Your task to perform on an android device: read, delete, or share a saved page in the chrome app Image 0: 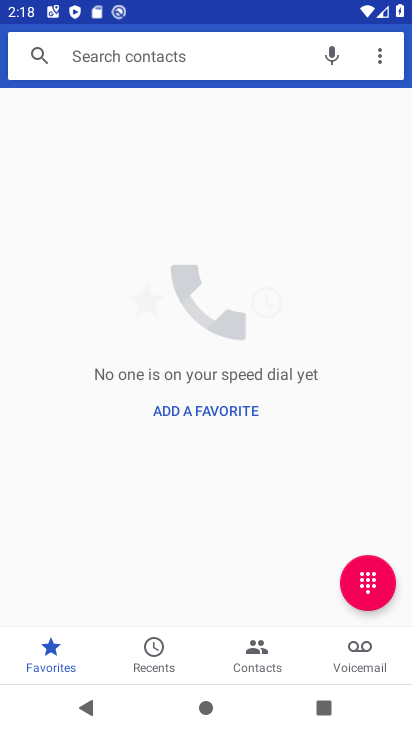
Step 0: press home button
Your task to perform on an android device: read, delete, or share a saved page in the chrome app Image 1: 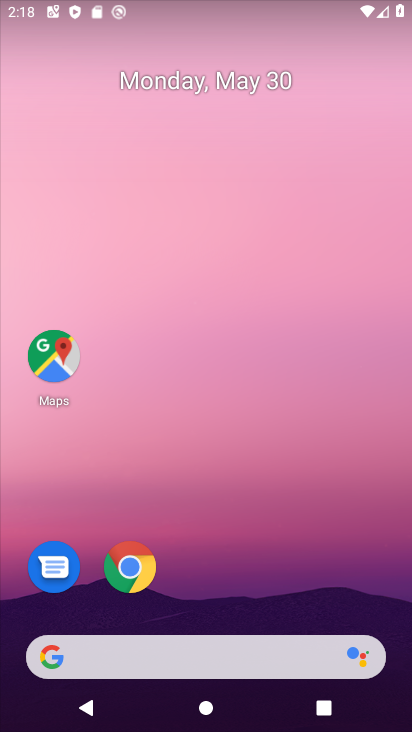
Step 1: click (131, 558)
Your task to perform on an android device: read, delete, or share a saved page in the chrome app Image 2: 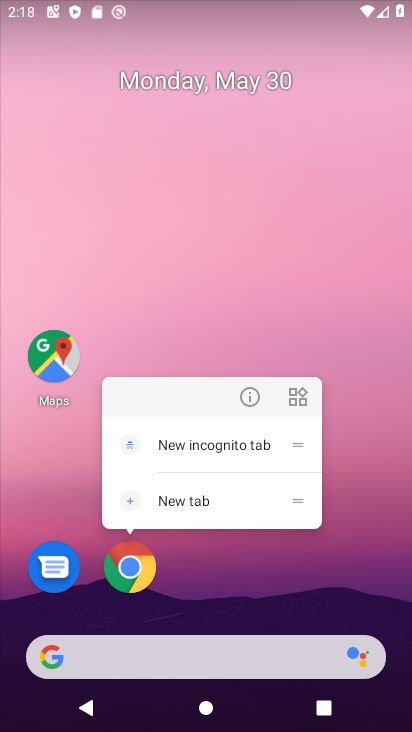
Step 2: click (134, 559)
Your task to perform on an android device: read, delete, or share a saved page in the chrome app Image 3: 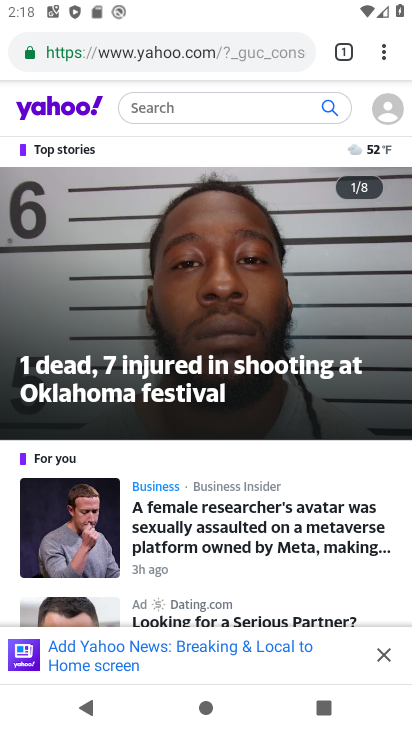
Step 3: click (382, 42)
Your task to perform on an android device: read, delete, or share a saved page in the chrome app Image 4: 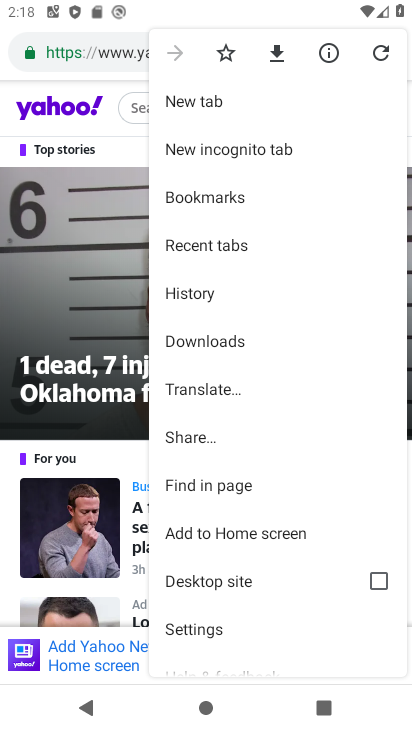
Step 4: click (214, 350)
Your task to perform on an android device: read, delete, or share a saved page in the chrome app Image 5: 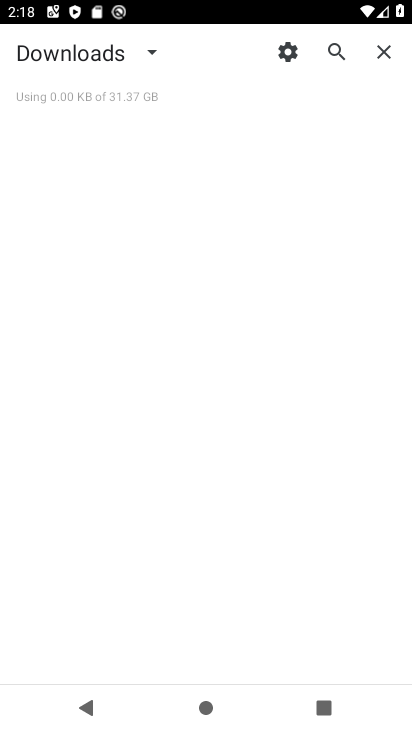
Step 5: task complete